Your task to perform on an android device: What's the weather? Image 0: 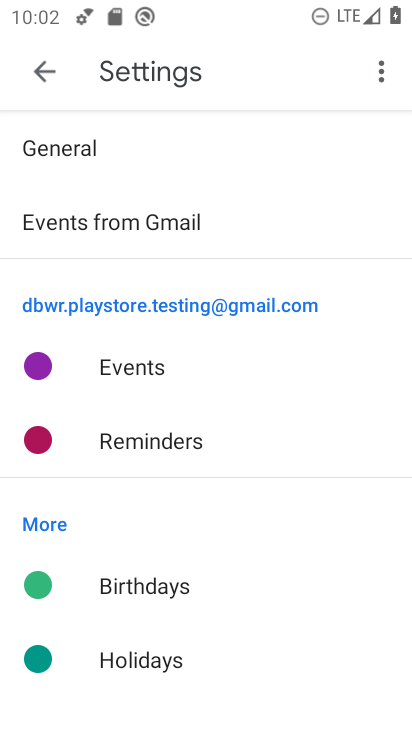
Step 0: drag from (357, 591) to (290, 101)
Your task to perform on an android device: What's the weather? Image 1: 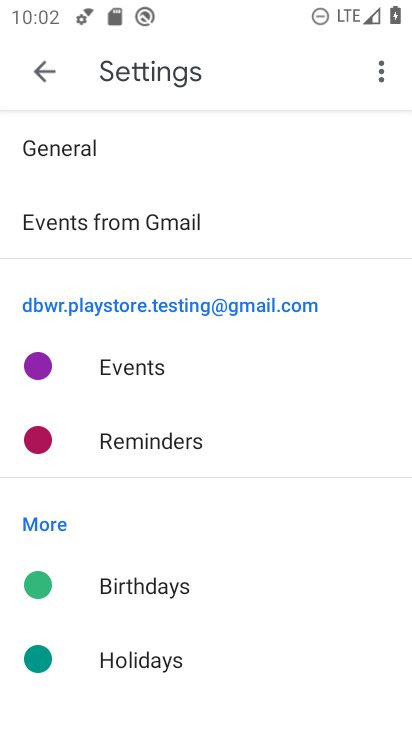
Step 1: task complete